Your task to perform on an android device: What's the weather? Image 0: 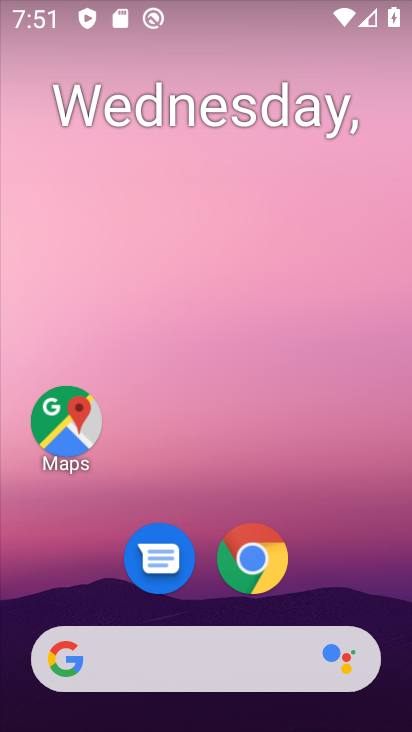
Step 0: drag from (241, 673) to (267, 83)
Your task to perform on an android device: What's the weather? Image 1: 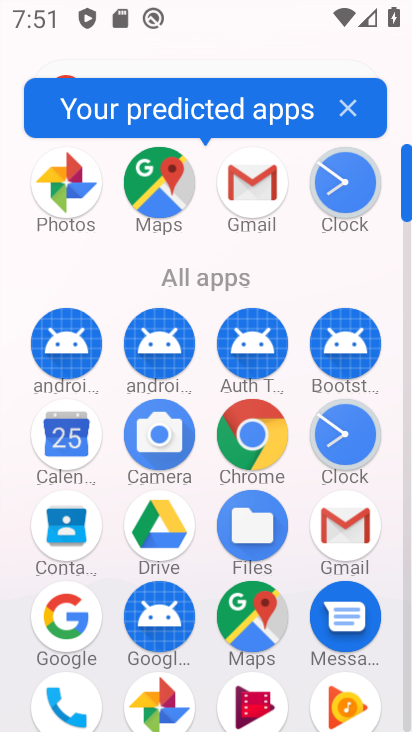
Step 1: click (257, 443)
Your task to perform on an android device: What's the weather? Image 2: 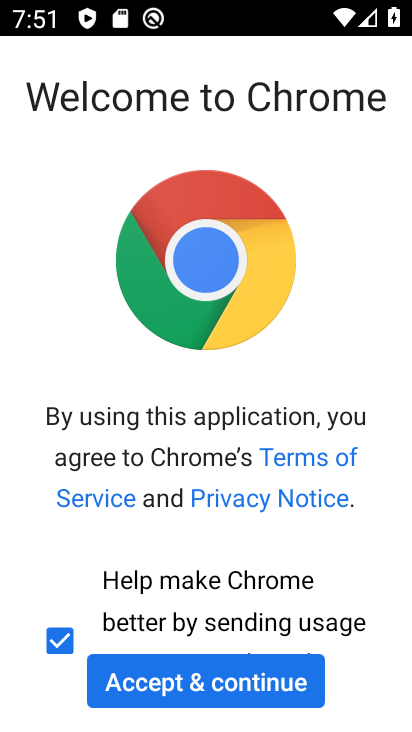
Step 2: click (224, 678)
Your task to perform on an android device: What's the weather? Image 3: 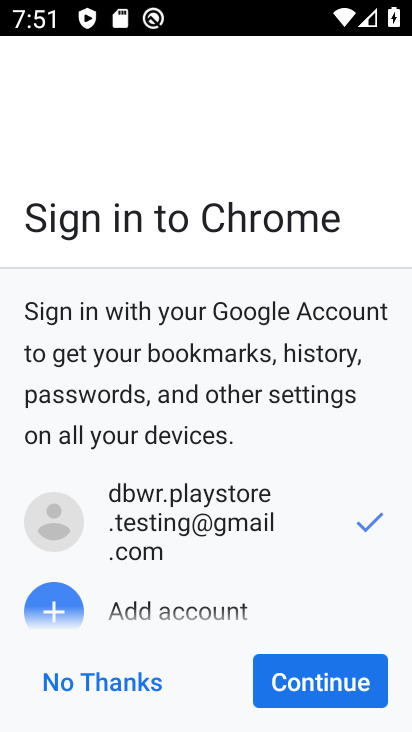
Step 3: click (290, 685)
Your task to perform on an android device: What's the weather? Image 4: 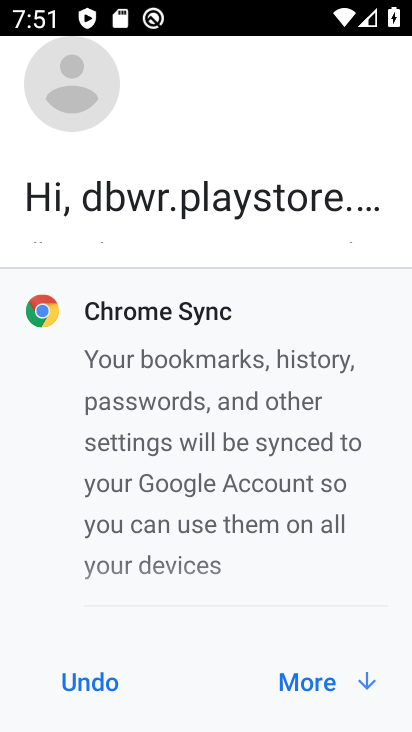
Step 4: click (284, 684)
Your task to perform on an android device: What's the weather? Image 5: 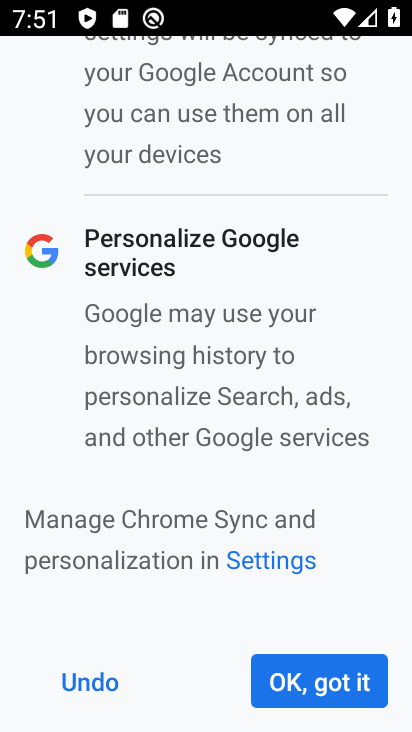
Step 5: click (284, 684)
Your task to perform on an android device: What's the weather? Image 6: 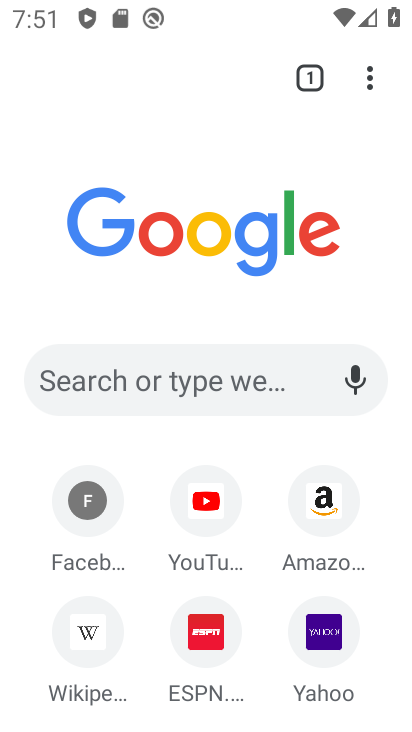
Step 6: click (221, 368)
Your task to perform on an android device: What's the weather? Image 7: 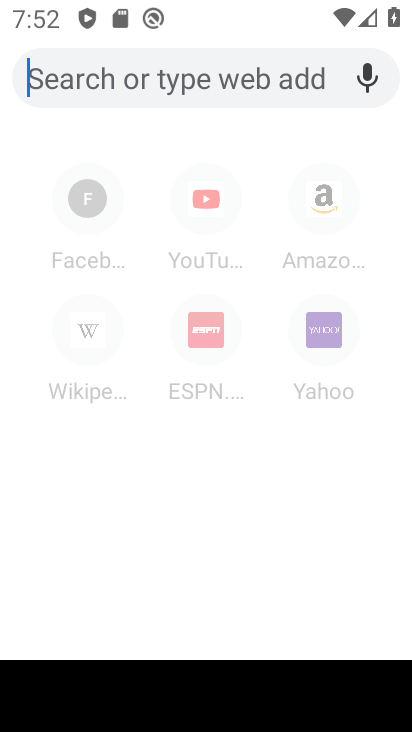
Step 7: type "weather"
Your task to perform on an android device: What's the weather? Image 8: 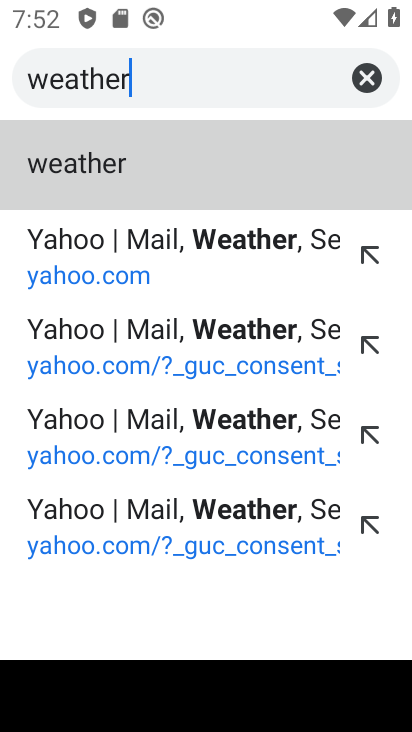
Step 8: type ""
Your task to perform on an android device: What's the weather? Image 9: 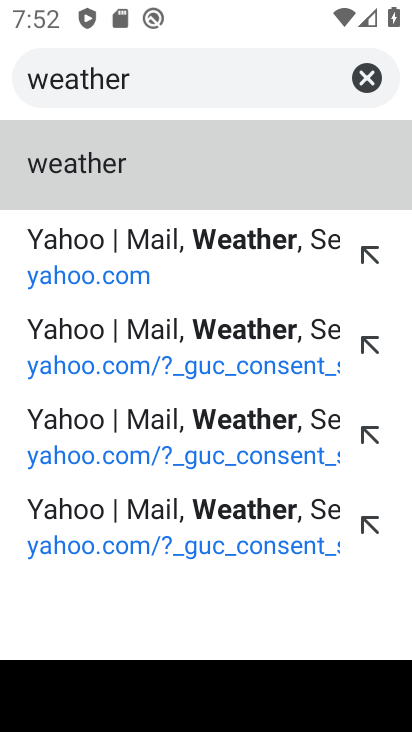
Step 9: click (259, 174)
Your task to perform on an android device: What's the weather? Image 10: 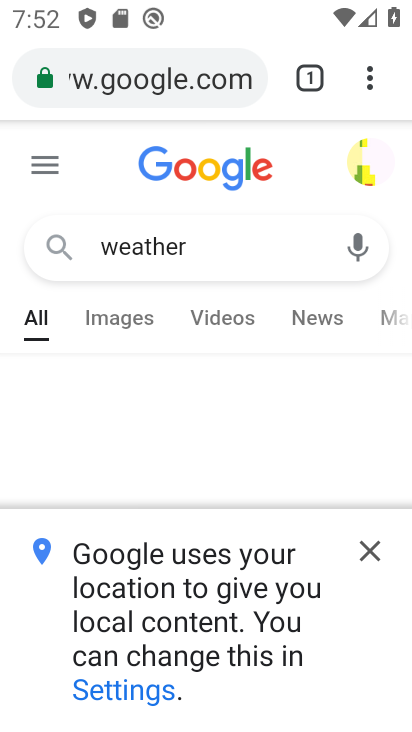
Step 10: task complete